Your task to perform on an android device: Open Android settings Image 0: 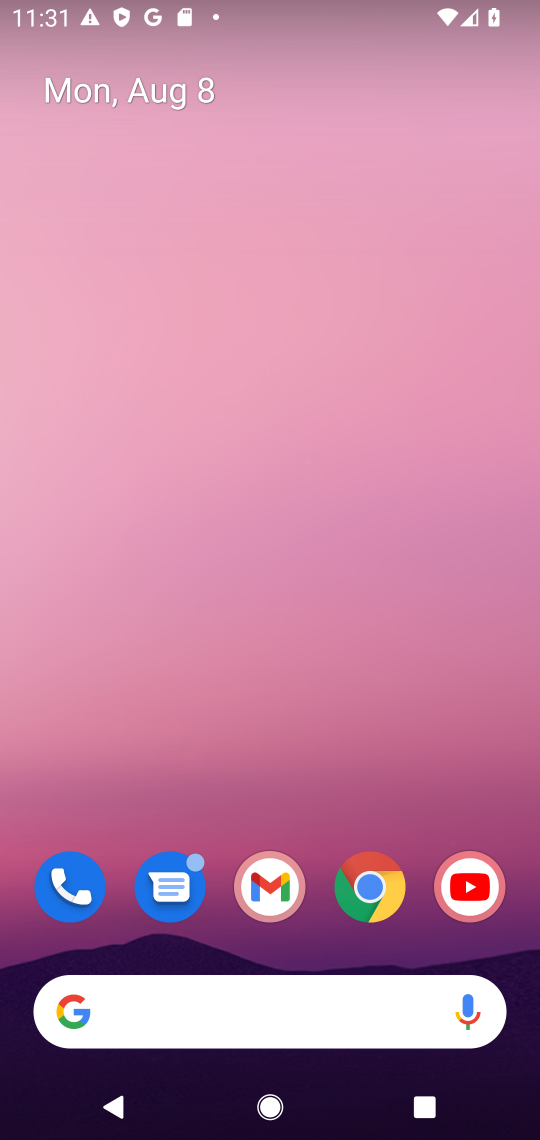
Step 0: drag from (321, 785) to (302, 80)
Your task to perform on an android device: Open Android settings Image 1: 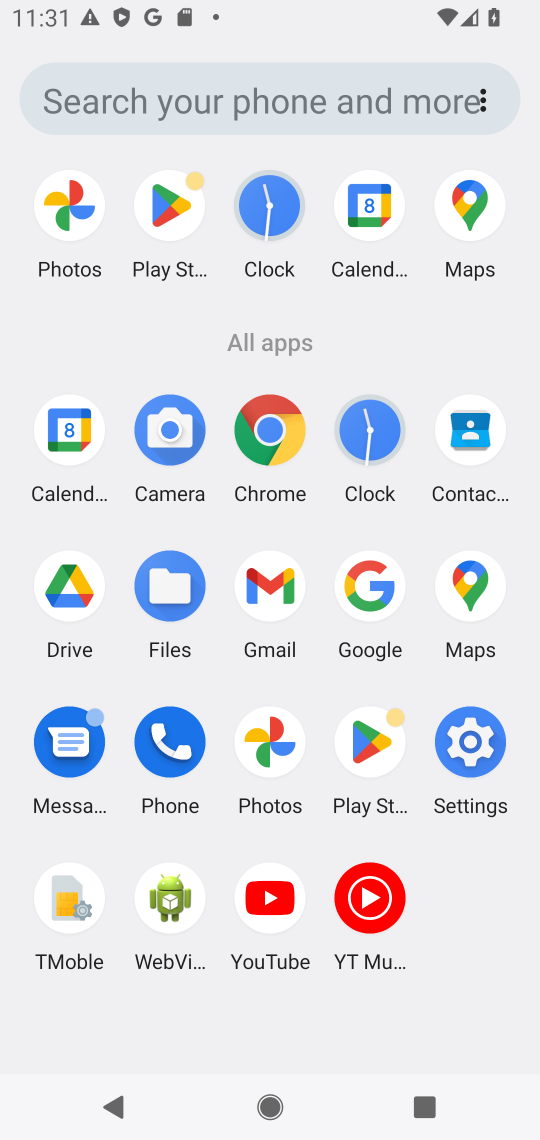
Step 1: click (476, 732)
Your task to perform on an android device: Open Android settings Image 2: 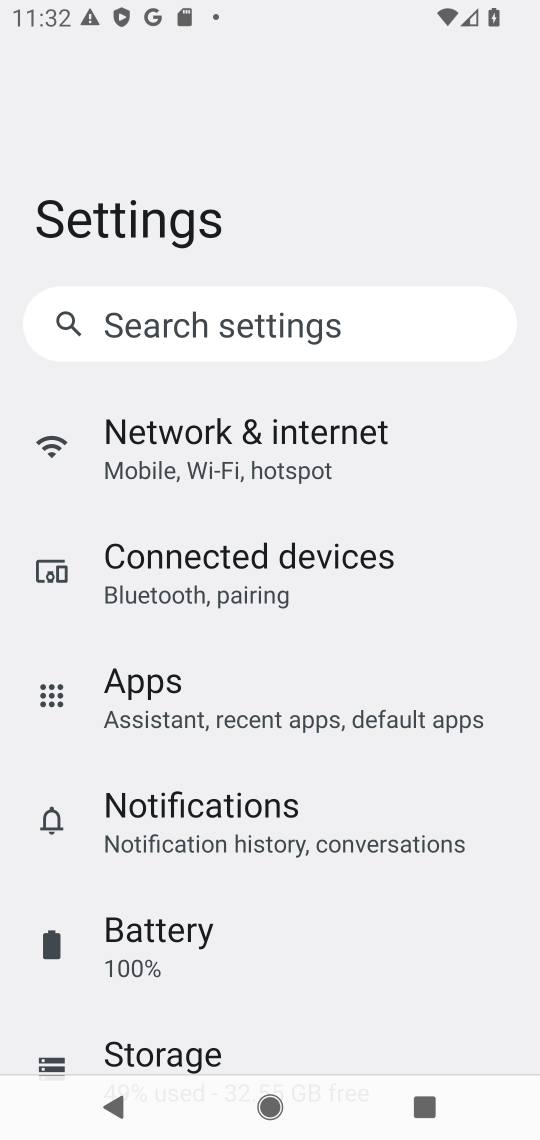
Step 2: task complete